Your task to perform on an android device: Go to location settings Image 0: 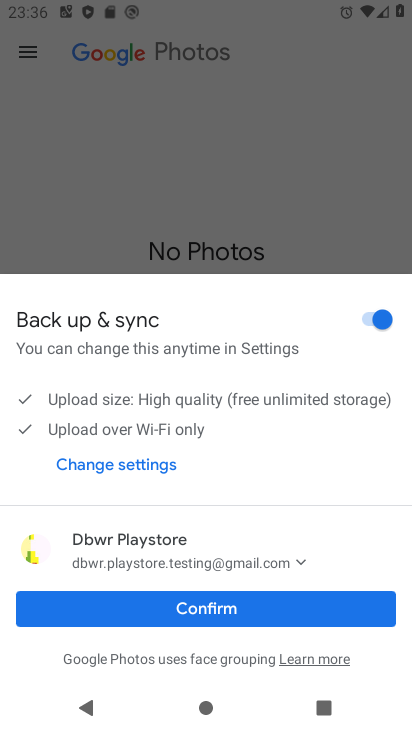
Step 0: press home button
Your task to perform on an android device: Go to location settings Image 1: 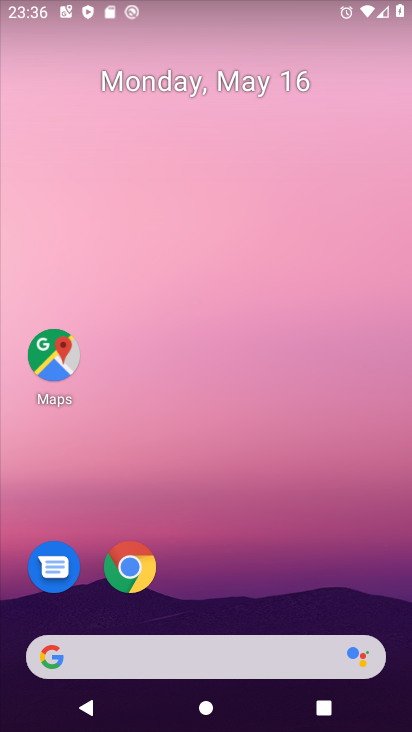
Step 1: drag from (253, 555) to (166, 135)
Your task to perform on an android device: Go to location settings Image 2: 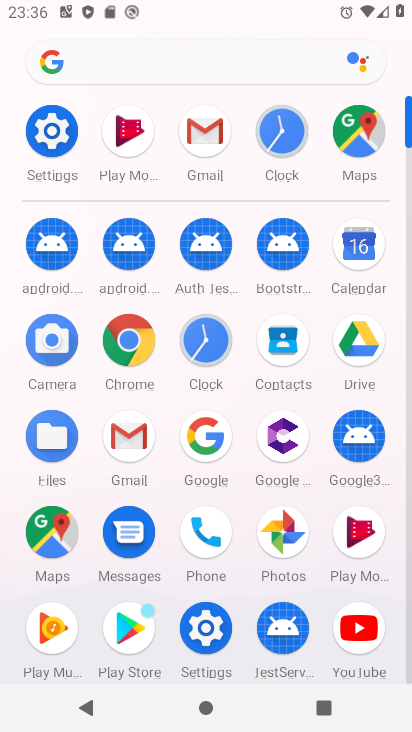
Step 2: click (55, 126)
Your task to perform on an android device: Go to location settings Image 3: 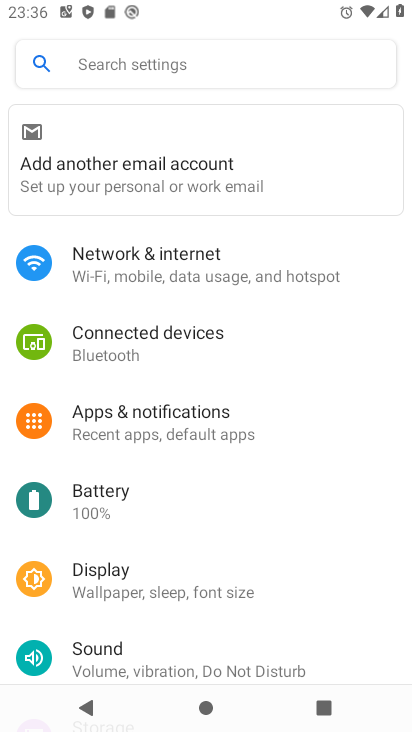
Step 3: drag from (205, 525) to (164, 272)
Your task to perform on an android device: Go to location settings Image 4: 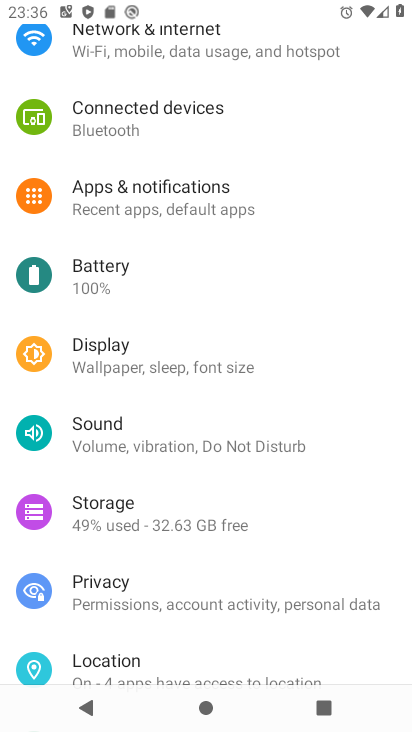
Step 4: click (101, 656)
Your task to perform on an android device: Go to location settings Image 5: 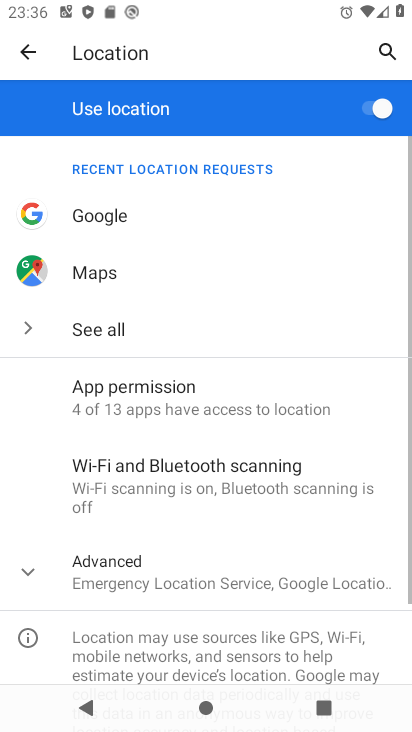
Step 5: task complete